Your task to perform on an android device: Go to wifi settings Image 0: 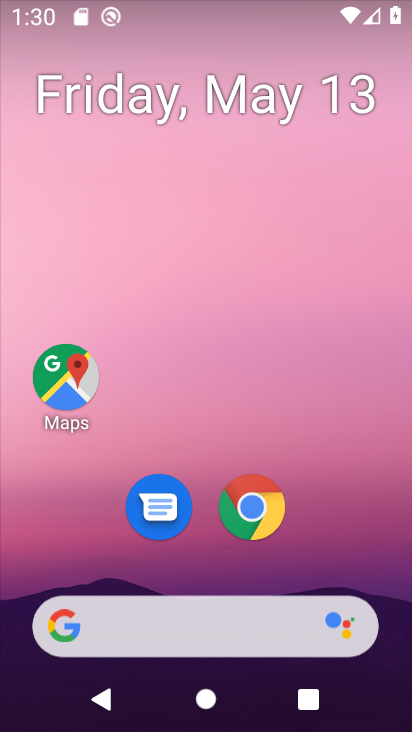
Step 0: drag from (217, 507) to (188, 21)
Your task to perform on an android device: Go to wifi settings Image 1: 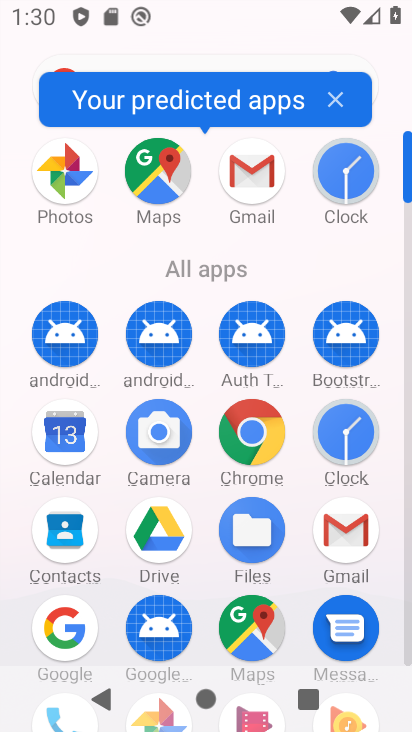
Step 1: drag from (200, 604) to (206, 69)
Your task to perform on an android device: Go to wifi settings Image 2: 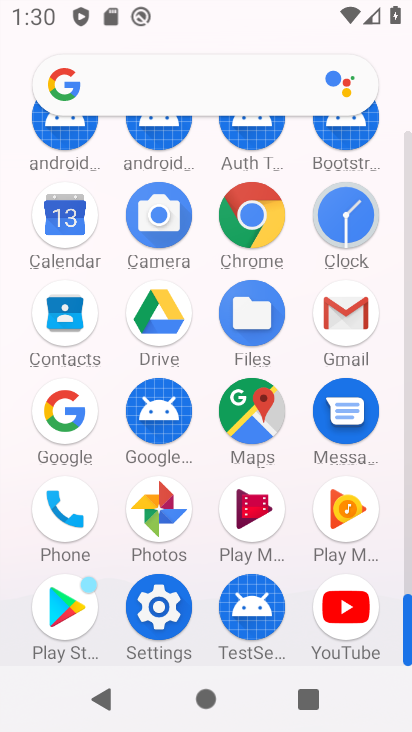
Step 2: click (151, 617)
Your task to perform on an android device: Go to wifi settings Image 3: 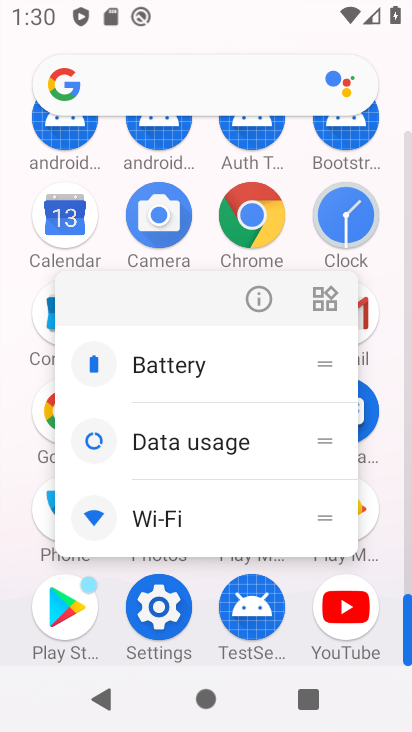
Step 3: click (163, 591)
Your task to perform on an android device: Go to wifi settings Image 4: 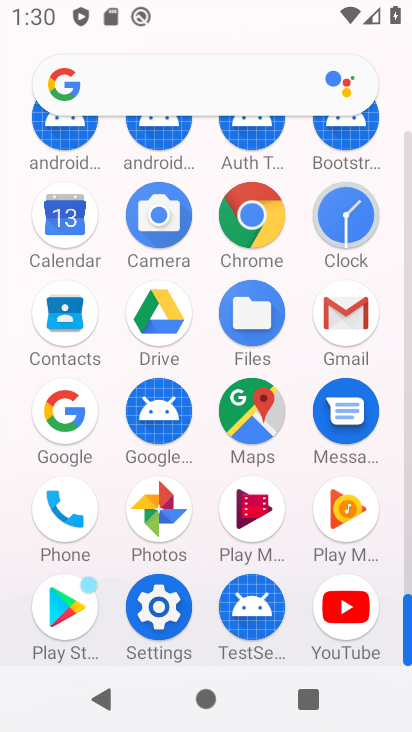
Step 4: click (155, 624)
Your task to perform on an android device: Go to wifi settings Image 5: 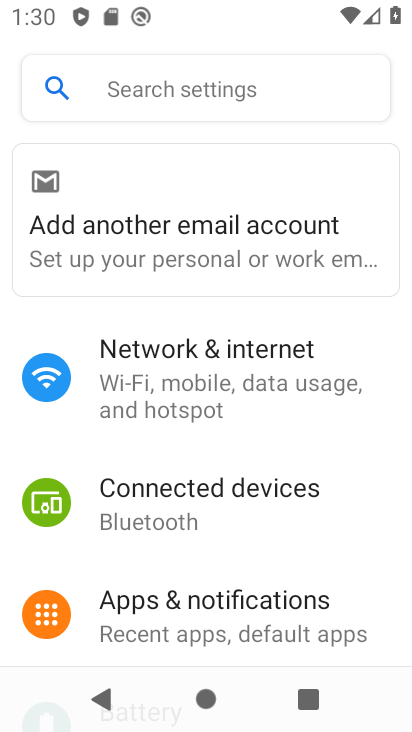
Step 5: click (150, 384)
Your task to perform on an android device: Go to wifi settings Image 6: 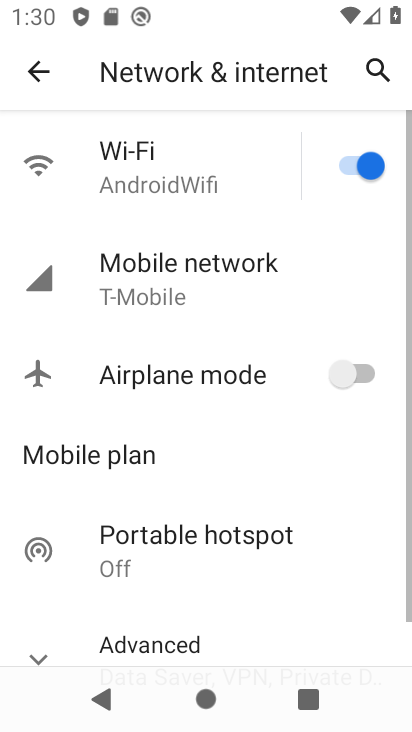
Step 6: click (158, 175)
Your task to perform on an android device: Go to wifi settings Image 7: 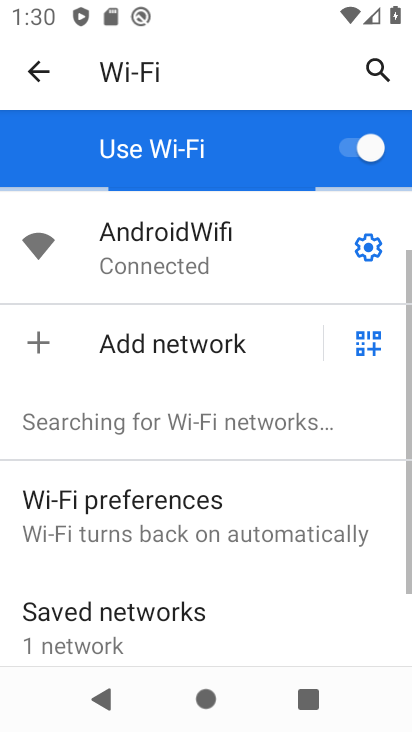
Step 7: task complete